Your task to perform on an android device: open chrome privacy settings Image 0: 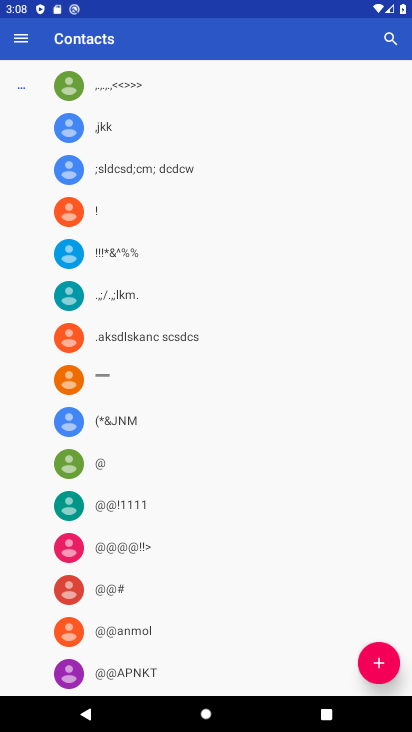
Step 0: press home button
Your task to perform on an android device: open chrome privacy settings Image 1: 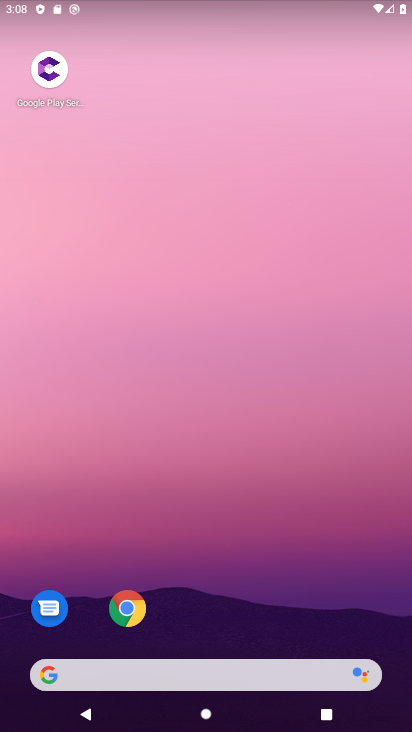
Step 1: click (121, 602)
Your task to perform on an android device: open chrome privacy settings Image 2: 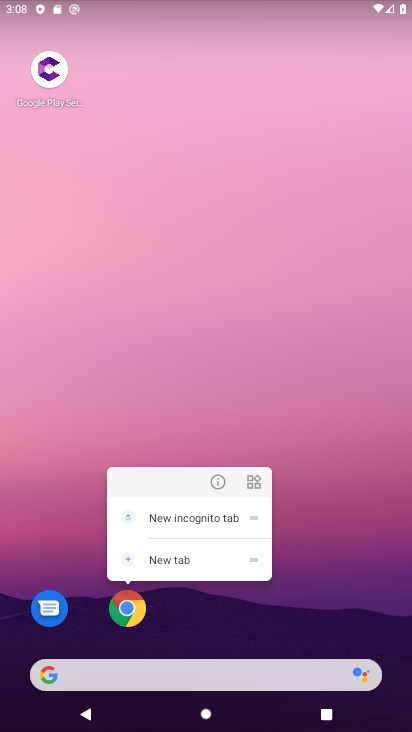
Step 2: click (112, 612)
Your task to perform on an android device: open chrome privacy settings Image 3: 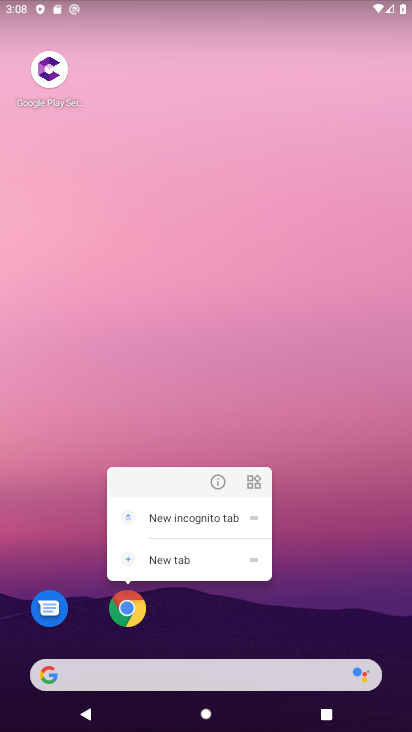
Step 3: click (122, 599)
Your task to perform on an android device: open chrome privacy settings Image 4: 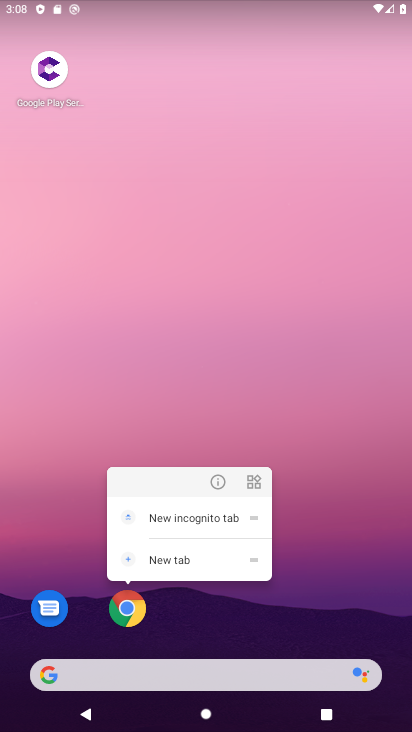
Step 4: click (122, 599)
Your task to perform on an android device: open chrome privacy settings Image 5: 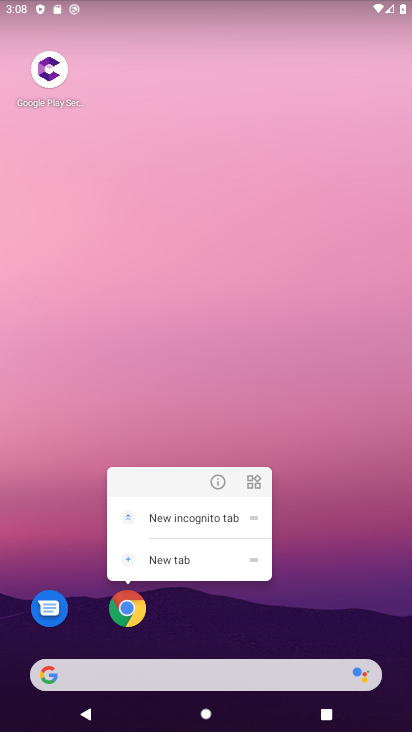
Step 5: click (122, 599)
Your task to perform on an android device: open chrome privacy settings Image 6: 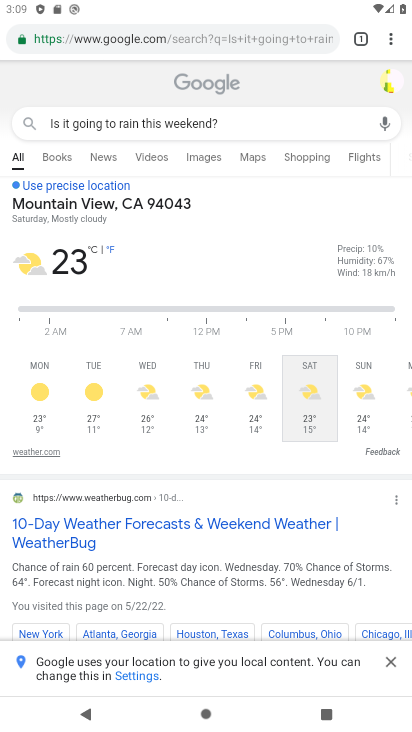
Step 6: click (385, 37)
Your task to perform on an android device: open chrome privacy settings Image 7: 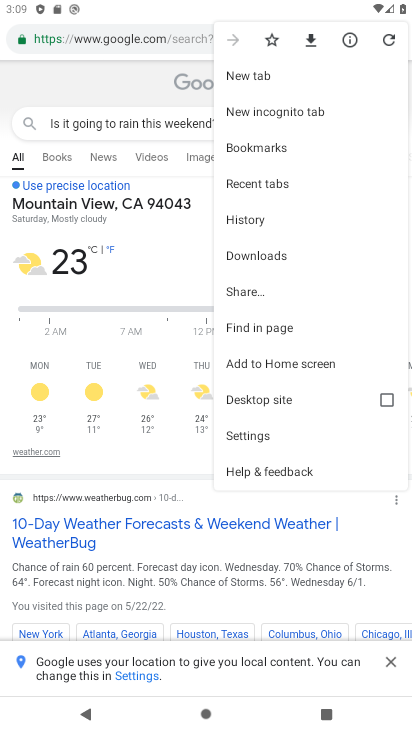
Step 7: click (259, 429)
Your task to perform on an android device: open chrome privacy settings Image 8: 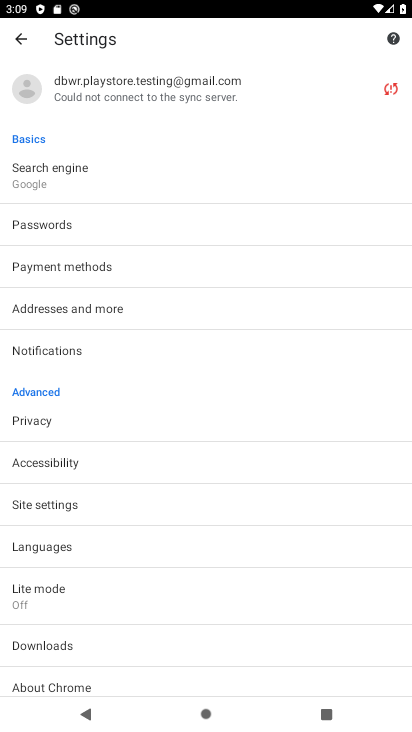
Step 8: click (75, 413)
Your task to perform on an android device: open chrome privacy settings Image 9: 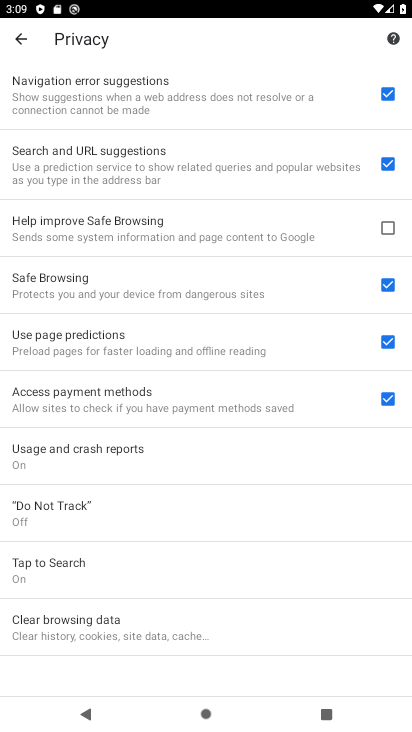
Step 9: task complete